Your task to perform on an android device: Open location settings Image 0: 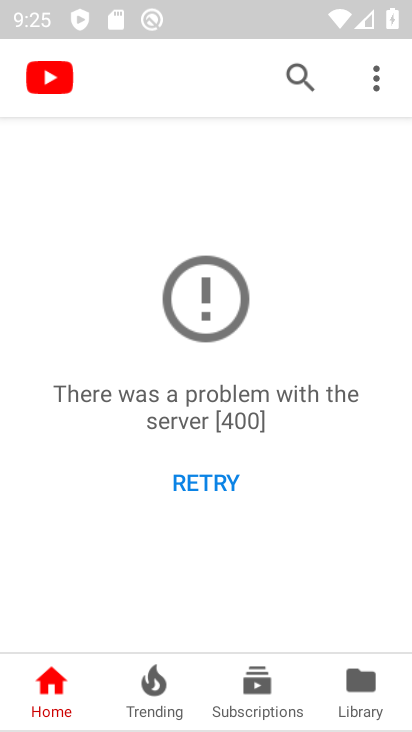
Step 0: press back button
Your task to perform on an android device: Open location settings Image 1: 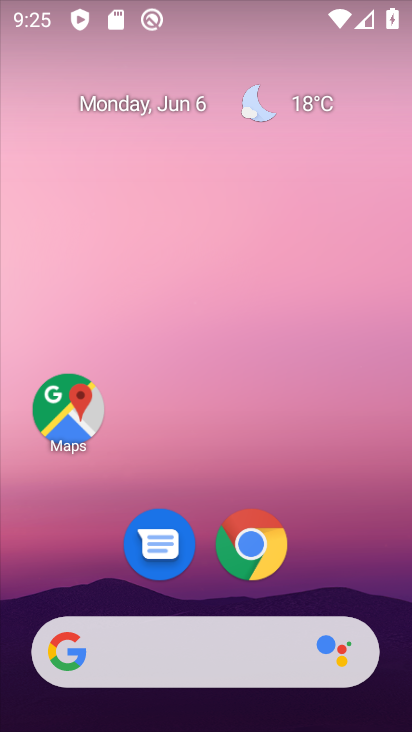
Step 1: drag from (198, 631) to (194, 169)
Your task to perform on an android device: Open location settings Image 2: 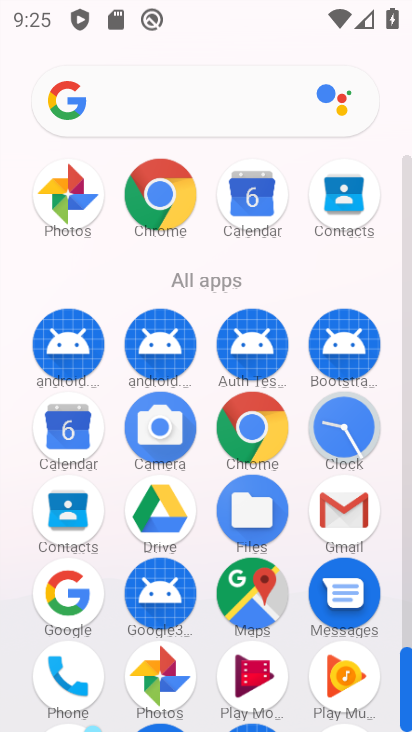
Step 2: drag from (225, 448) to (246, 188)
Your task to perform on an android device: Open location settings Image 3: 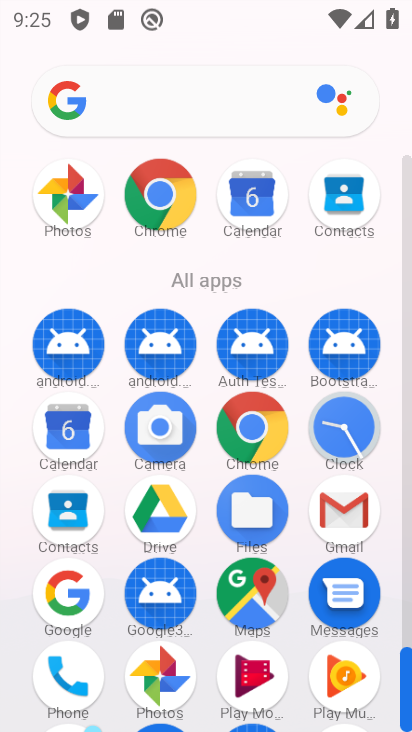
Step 3: drag from (238, 412) to (242, 266)
Your task to perform on an android device: Open location settings Image 4: 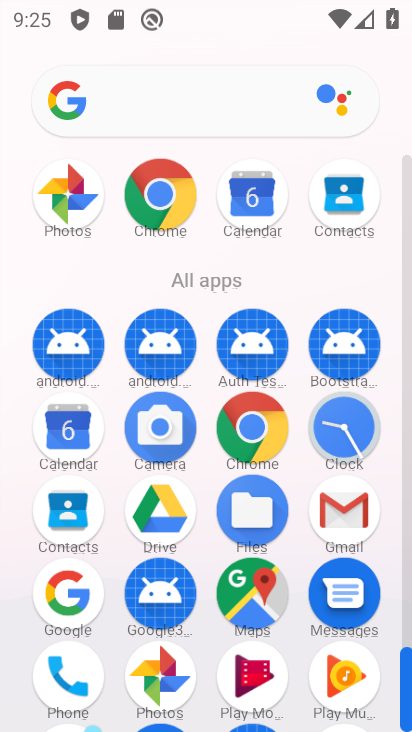
Step 4: drag from (220, 500) to (235, 230)
Your task to perform on an android device: Open location settings Image 5: 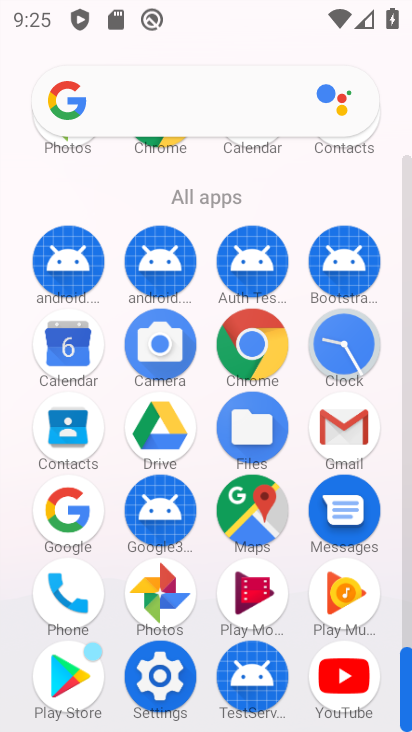
Step 5: drag from (271, 568) to (322, 285)
Your task to perform on an android device: Open location settings Image 6: 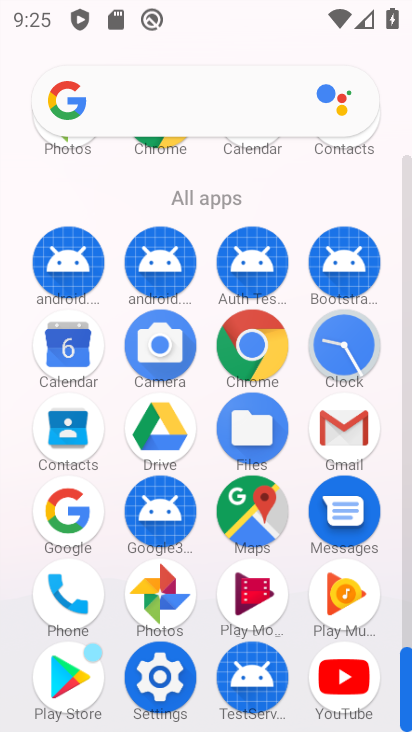
Step 6: drag from (324, 497) to (305, 385)
Your task to perform on an android device: Open location settings Image 7: 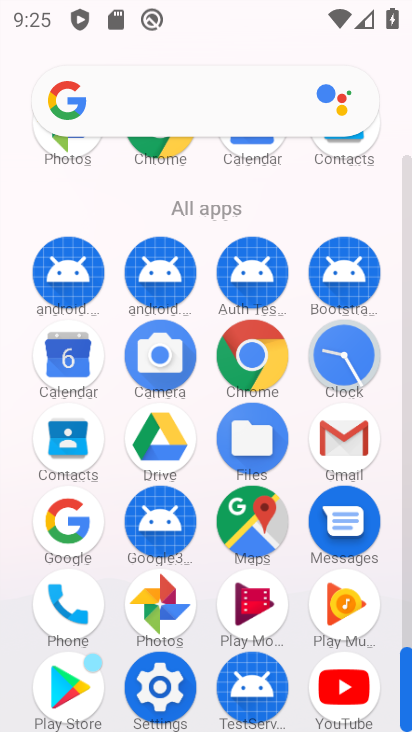
Step 7: click (160, 686)
Your task to perform on an android device: Open location settings Image 8: 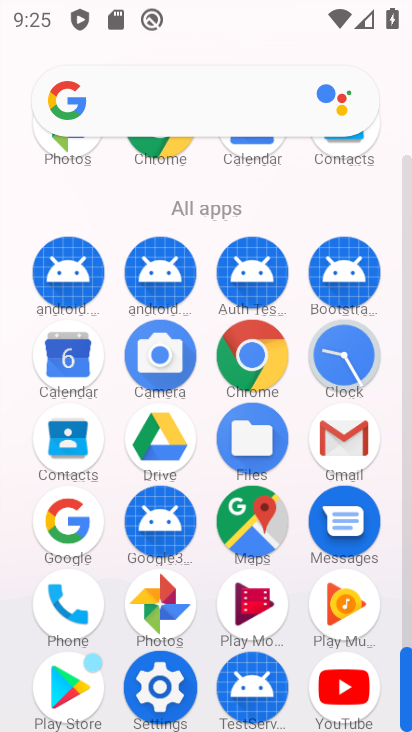
Step 8: click (160, 686)
Your task to perform on an android device: Open location settings Image 9: 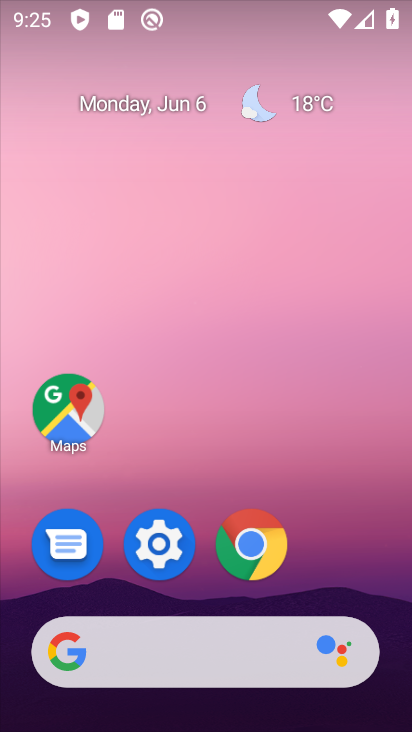
Step 9: click (118, 681)
Your task to perform on an android device: Open location settings Image 10: 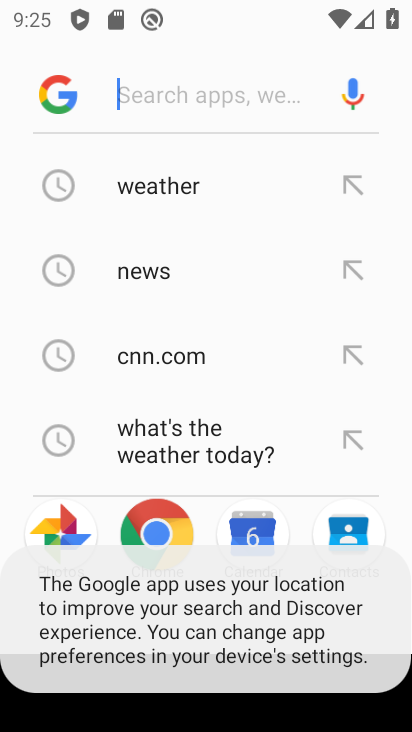
Step 10: press back button
Your task to perform on an android device: Open location settings Image 11: 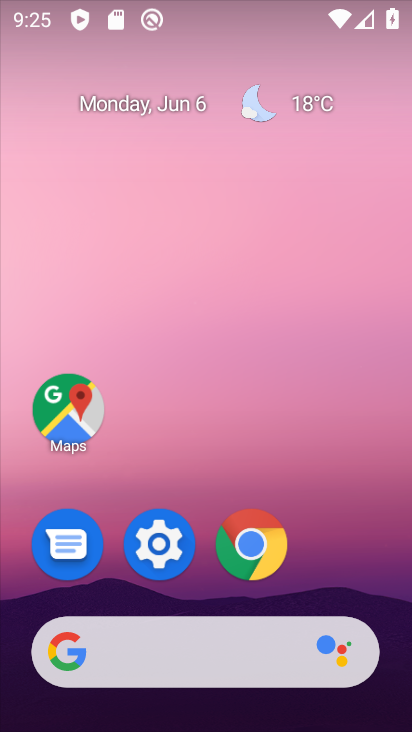
Step 11: press back button
Your task to perform on an android device: Open location settings Image 12: 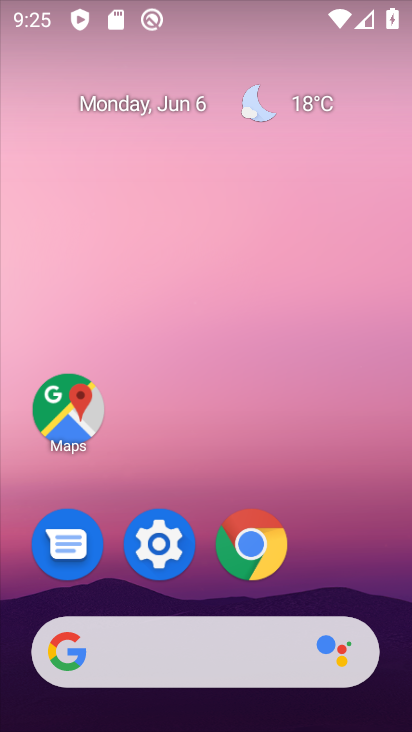
Step 12: drag from (224, 690) to (132, 60)
Your task to perform on an android device: Open location settings Image 13: 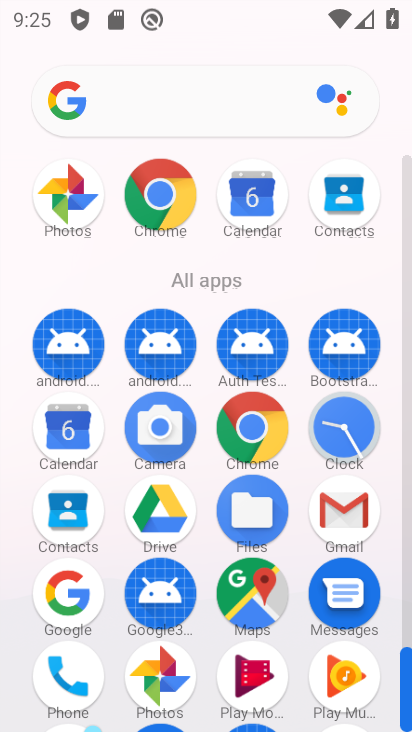
Step 13: drag from (200, 300) to (219, 145)
Your task to perform on an android device: Open location settings Image 14: 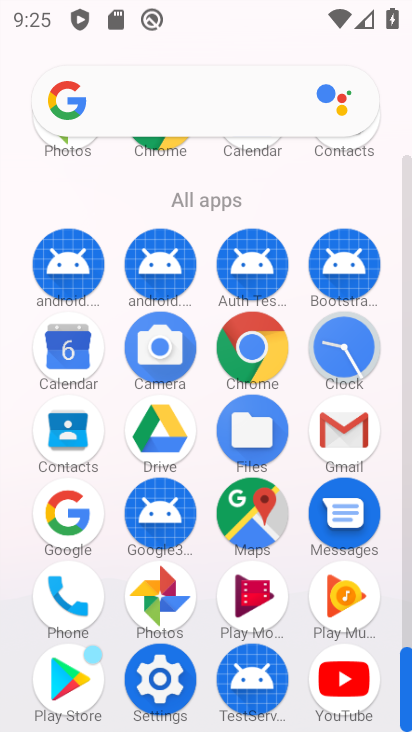
Step 14: drag from (229, 508) to (208, 208)
Your task to perform on an android device: Open location settings Image 15: 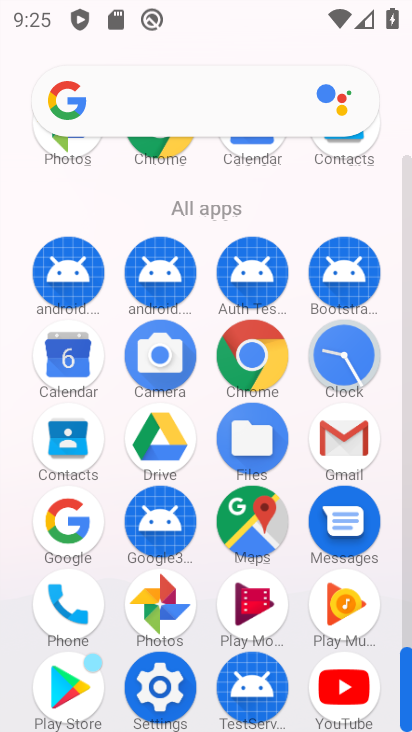
Step 15: click (155, 684)
Your task to perform on an android device: Open location settings Image 16: 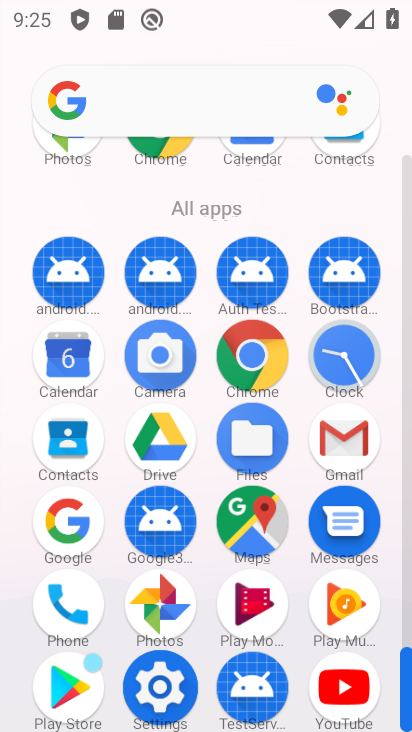
Step 16: click (155, 683)
Your task to perform on an android device: Open location settings Image 17: 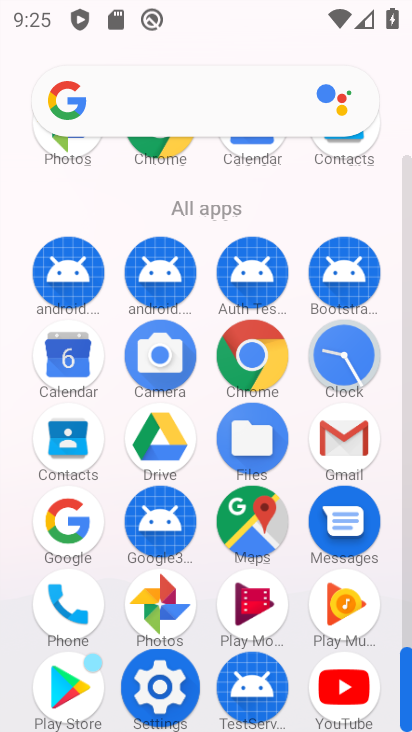
Step 17: click (149, 678)
Your task to perform on an android device: Open location settings Image 18: 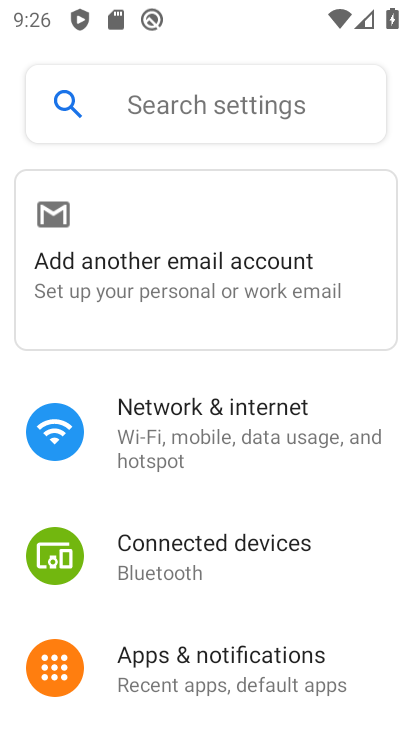
Step 18: drag from (175, 567) to (134, 273)
Your task to perform on an android device: Open location settings Image 19: 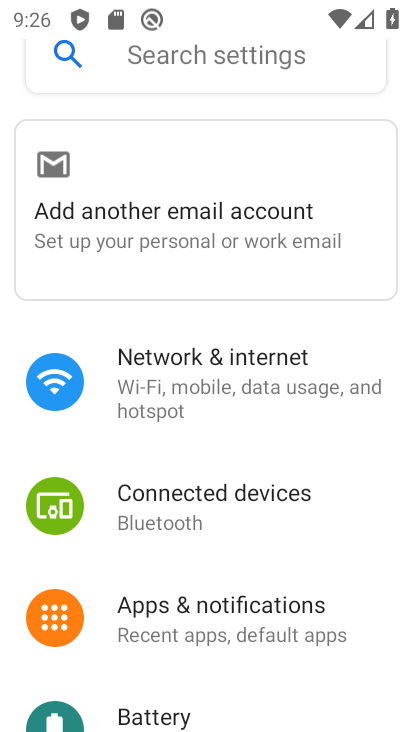
Step 19: drag from (146, 443) to (146, 241)
Your task to perform on an android device: Open location settings Image 20: 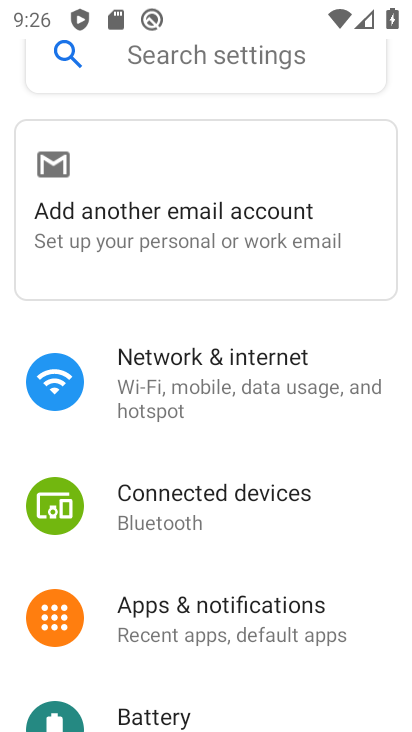
Step 20: drag from (178, 624) to (176, 334)
Your task to perform on an android device: Open location settings Image 21: 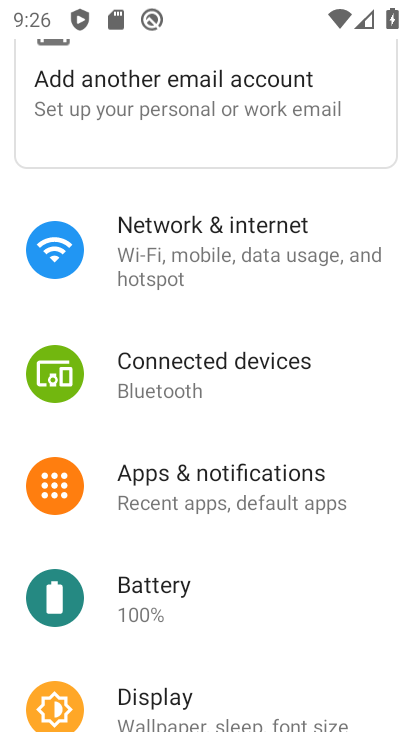
Step 21: drag from (158, 573) to (177, 266)
Your task to perform on an android device: Open location settings Image 22: 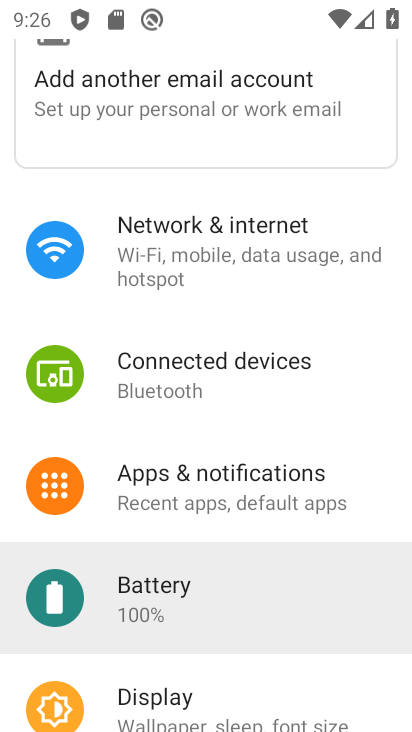
Step 22: drag from (189, 553) to (158, 290)
Your task to perform on an android device: Open location settings Image 23: 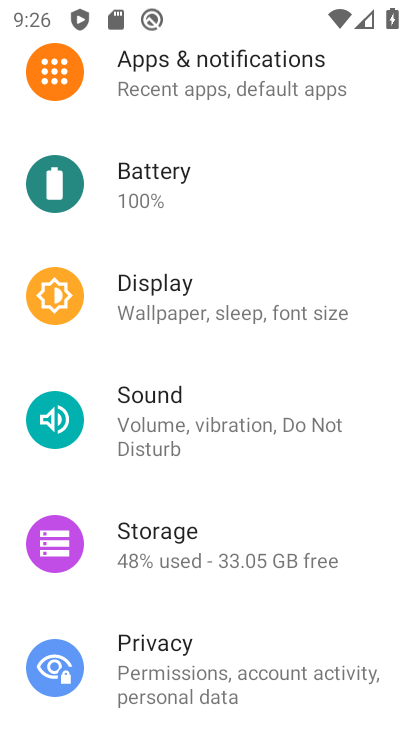
Step 23: drag from (213, 524) to (185, 53)
Your task to perform on an android device: Open location settings Image 24: 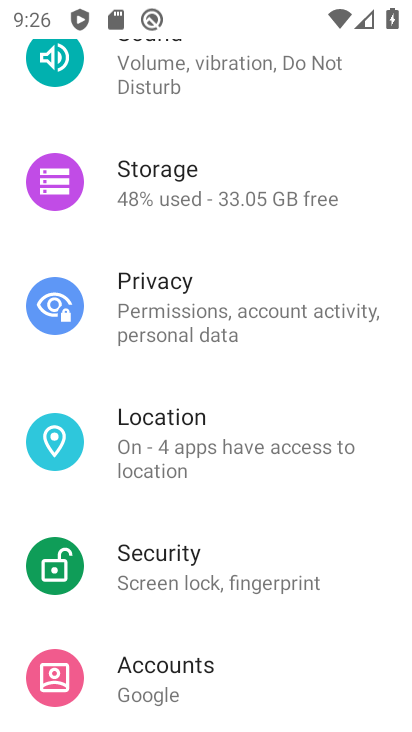
Step 24: drag from (166, 416) to (152, 81)
Your task to perform on an android device: Open location settings Image 25: 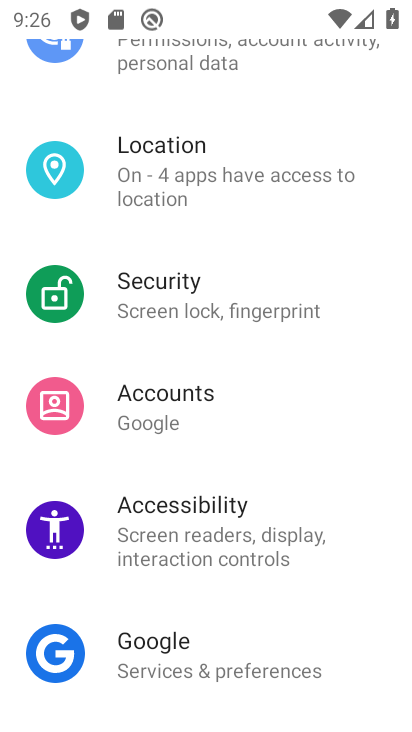
Step 25: drag from (203, 521) to (181, 237)
Your task to perform on an android device: Open location settings Image 26: 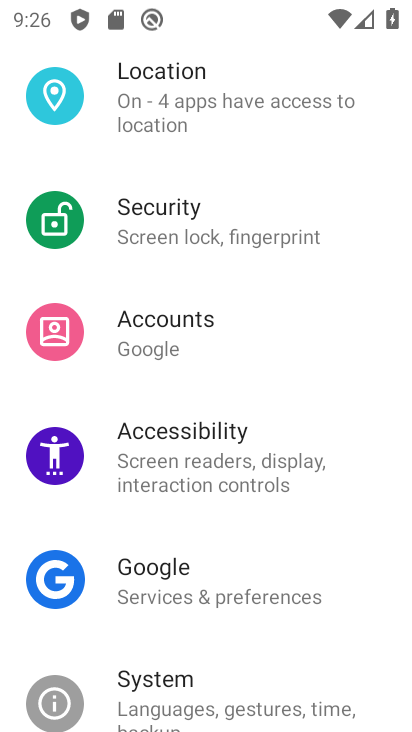
Step 26: click (175, 94)
Your task to perform on an android device: Open location settings Image 27: 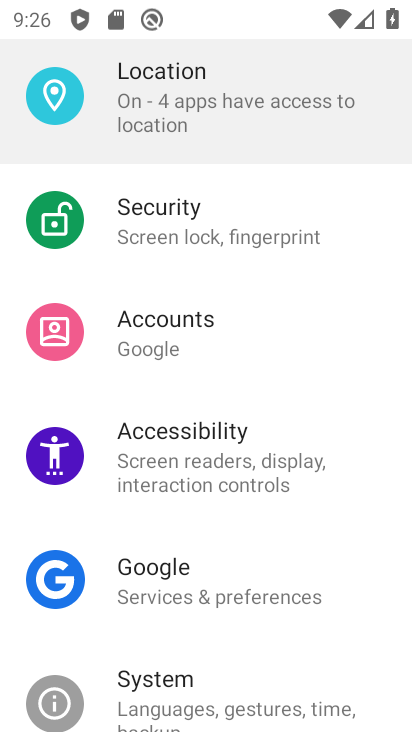
Step 27: click (187, 92)
Your task to perform on an android device: Open location settings Image 28: 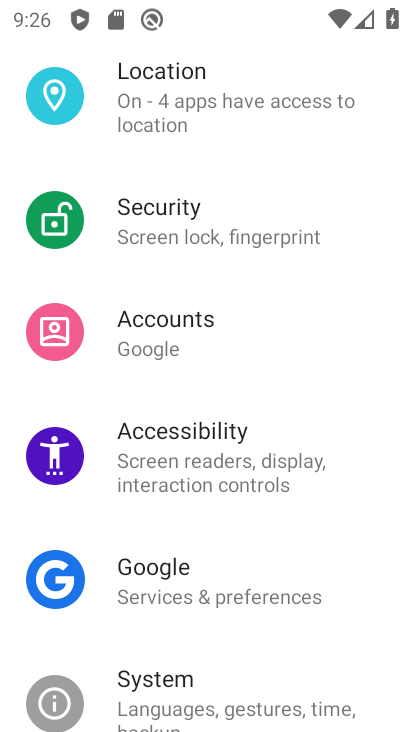
Step 28: click (192, 95)
Your task to perform on an android device: Open location settings Image 29: 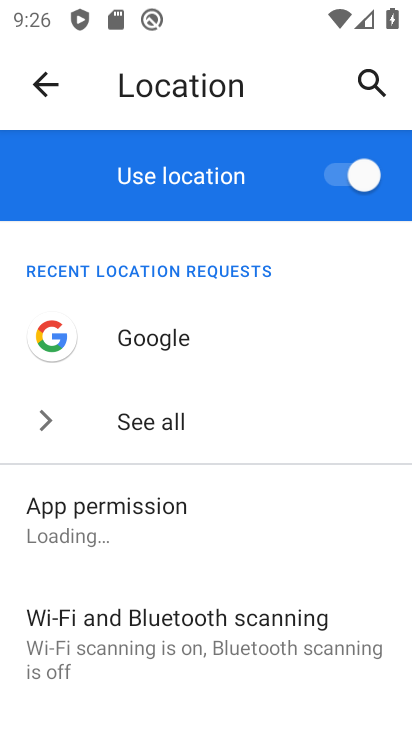
Step 29: task complete